Your task to perform on an android device: Open internet settings Image 0: 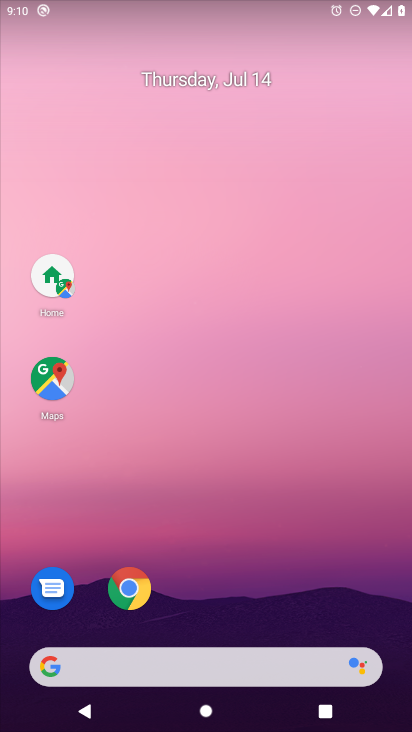
Step 0: drag from (40, 698) to (273, 116)
Your task to perform on an android device: Open internet settings Image 1: 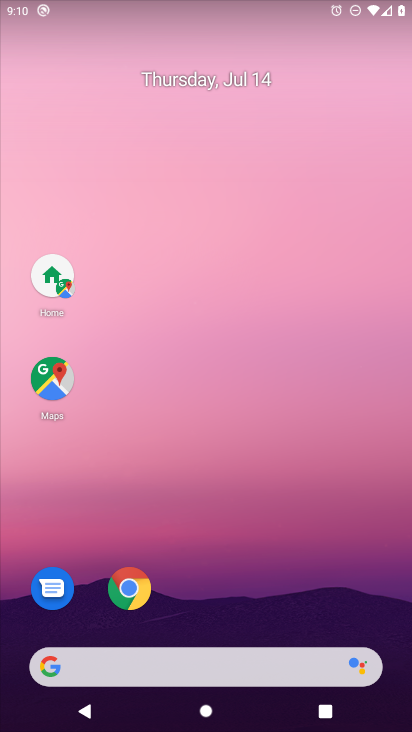
Step 1: drag from (26, 705) to (351, 53)
Your task to perform on an android device: Open internet settings Image 2: 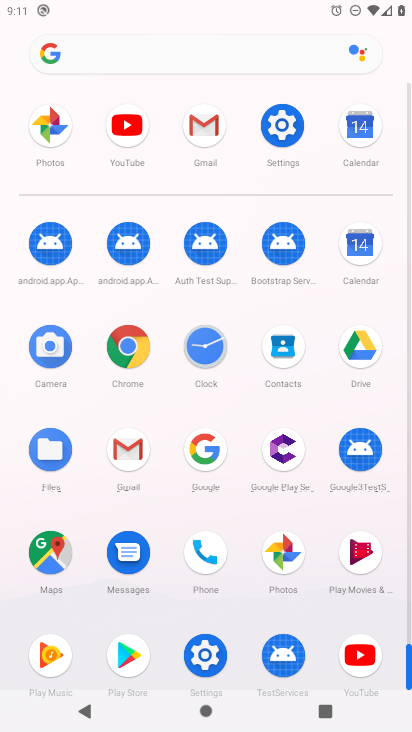
Step 2: click (210, 626)
Your task to perform on an android device: Open internet settings Image 3: 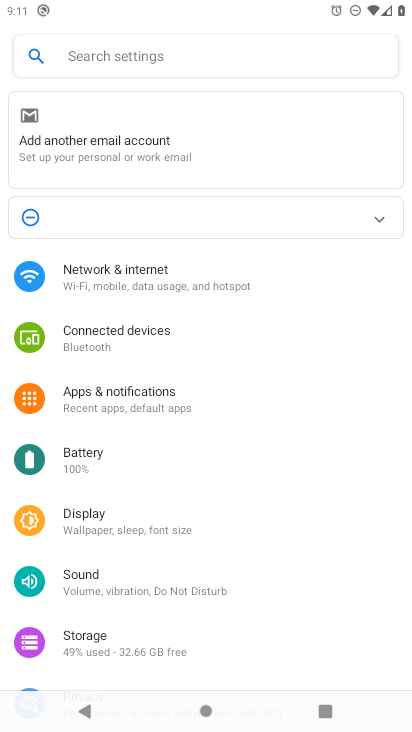
Step 3: click (113, 298)
Your task to perform on an android device: Open internet settings Image 4: 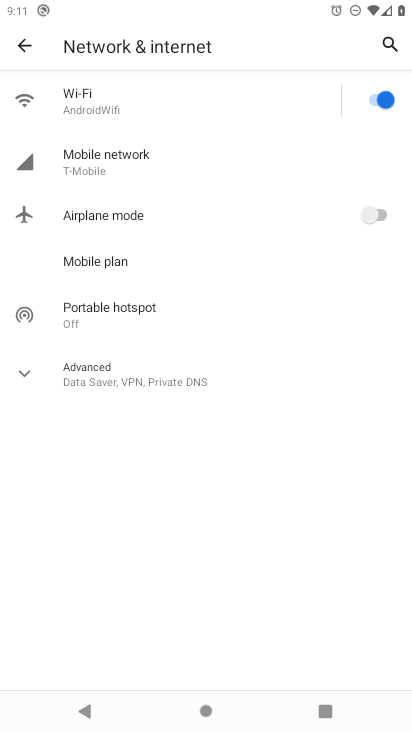
Step 4: task complete